Your task to perform on an android device: Show me the alarms in the clock app Image 0: 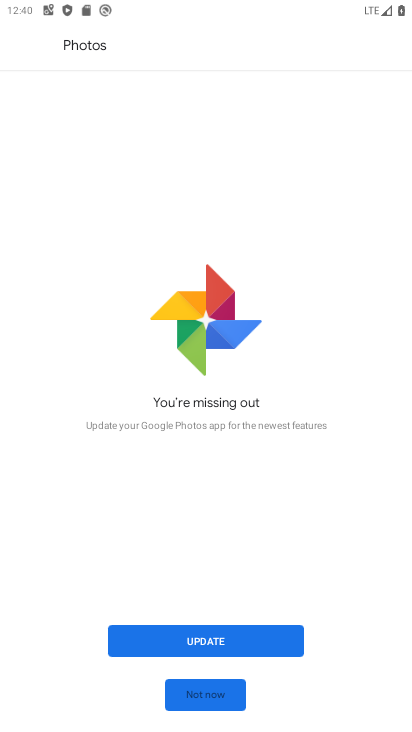
Step 0: press home button
Your task to perform on an android device: Show me the alarms in the clock app Image 1: 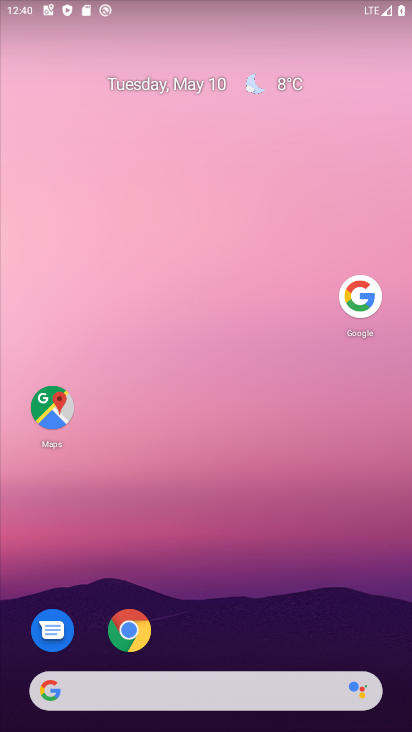
Step 1: drag from (170, 671) to (314, 68)
Your task to perform on an android device: Show me the alarms in the clock app Image 2: 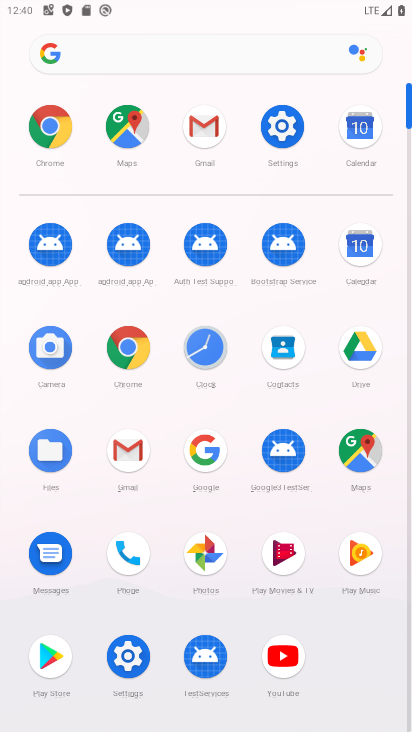
Step 2: click (205, 353)
Your task to perform on an android device: Show me the alarms in the clock app Image 3: 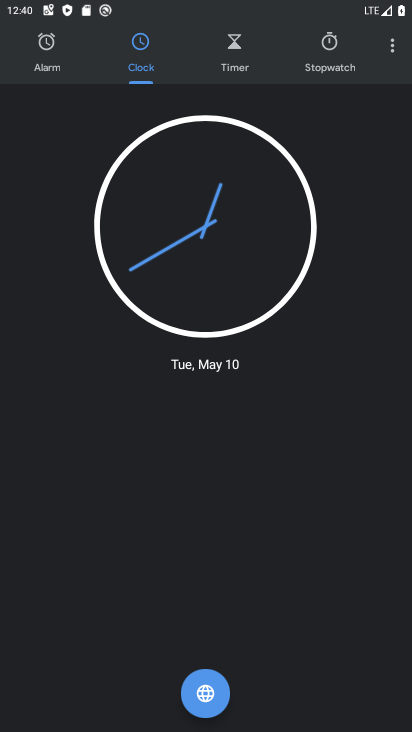
Step 3: click (46, 69)
Your task to perform on an android device: Show me the alarms in the clock app Image 4: 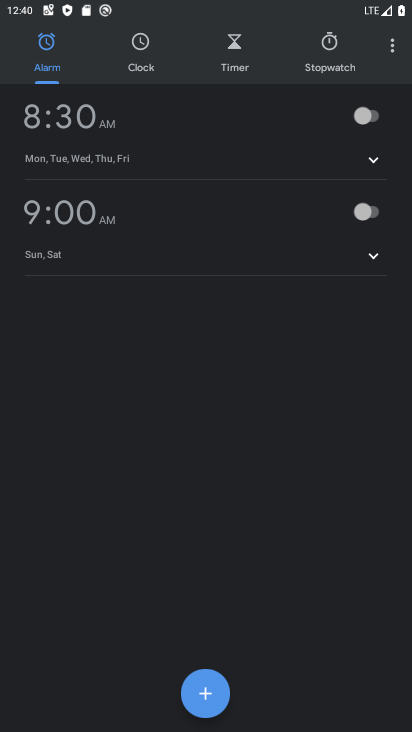
Step 4: task complete